Your task to perform on an android device: Open sound settings Image 0: 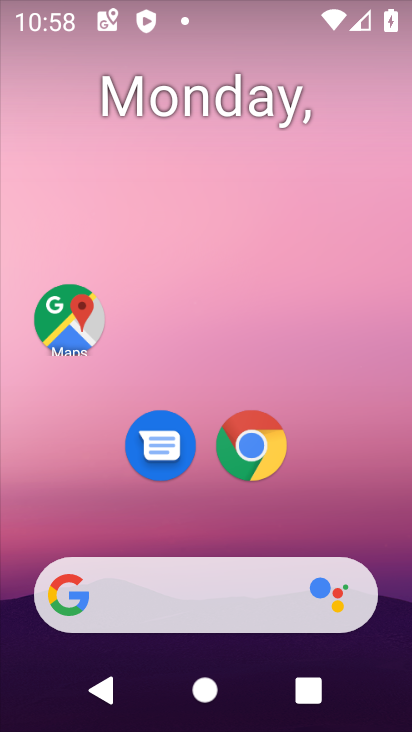
Step 0: drag from (205, 500) to (280, 30)
Your task to perform on an android device: Open sound settings Image 1: 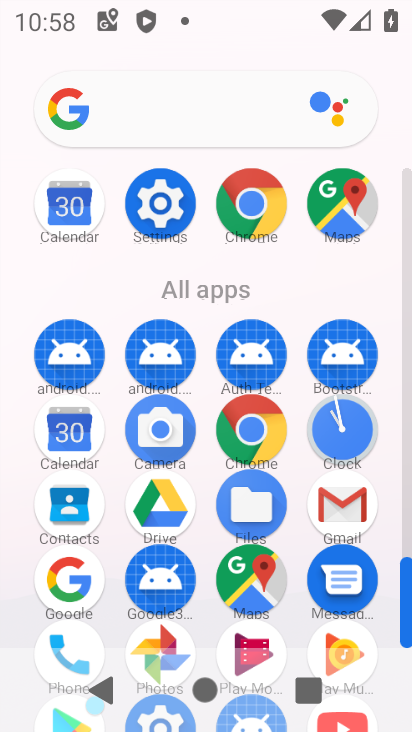
Step 1: click (169, 191)
Your task to perform on an android device: Open sound settings Image 2: 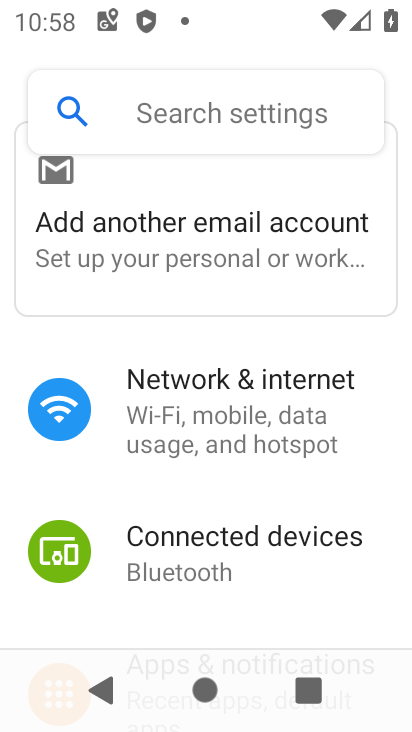
Step 2: drag from (191, 589) to (286, 202)
Your task to perform on an android device: Open sound settings Image 3: 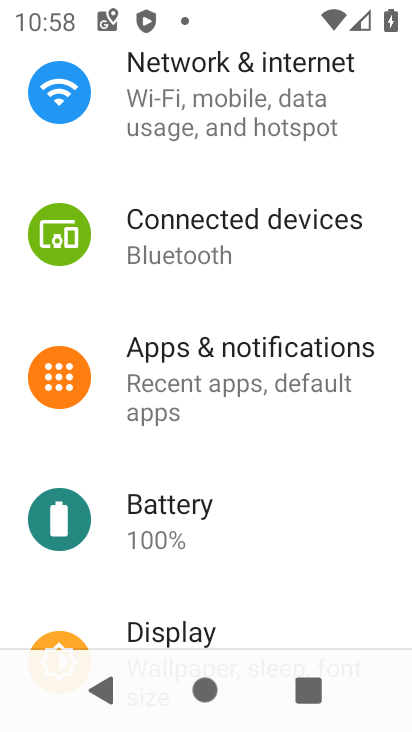
Step 3: drag from (208, 577) to (329, 143)
Your task to perform on an android device: Open sound settings Image 4: 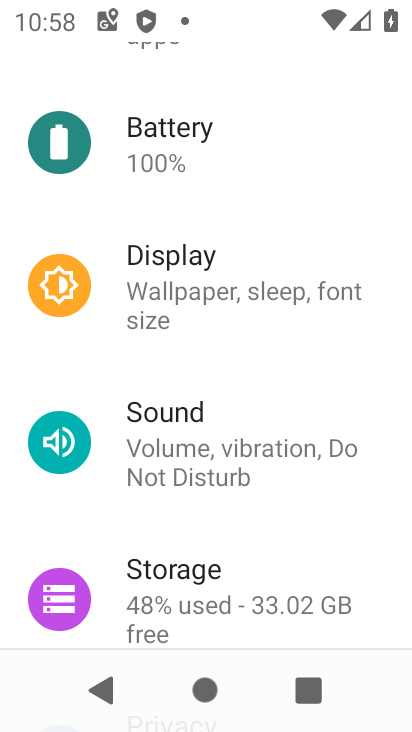
Step 4: click (223, 427)
Your task to perform on an android device: Open sound settings Image 5: 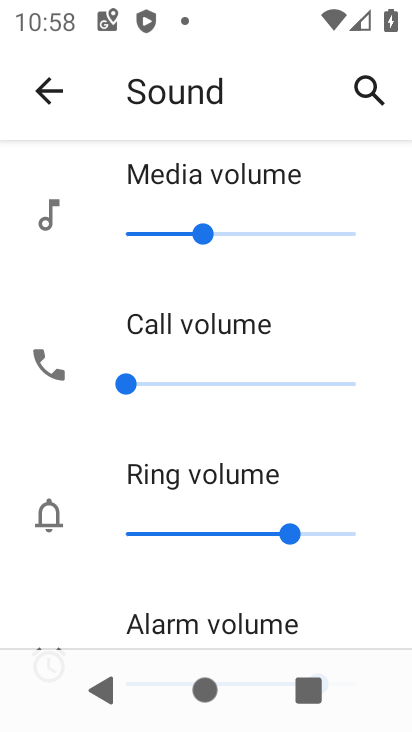
Step 5: task complete